Your task to perform on an android device: Open network settings Image 0: 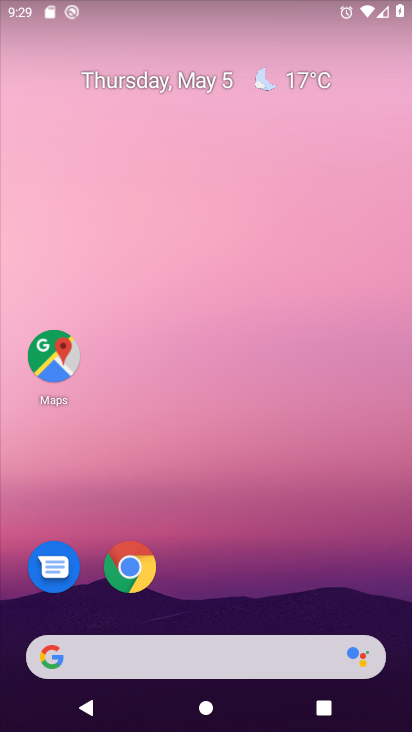
Step 0: drag from (322, 564) to (285, 31)
Your task to perform on an android device: Open network settings Image 1: 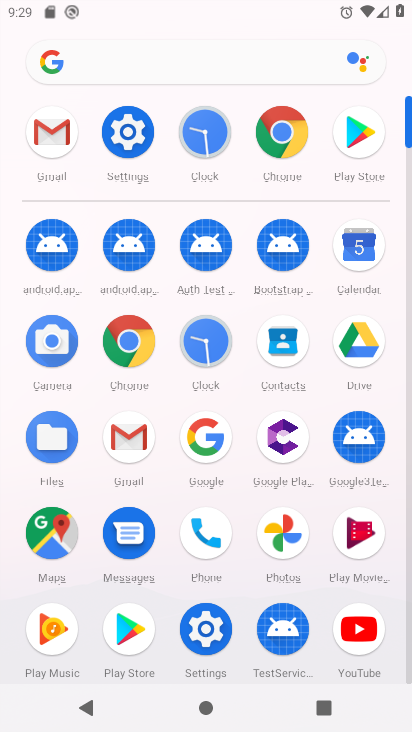
Step 1: click (147, 118)
Your task to perform on an android device: Open network settings Image 2: 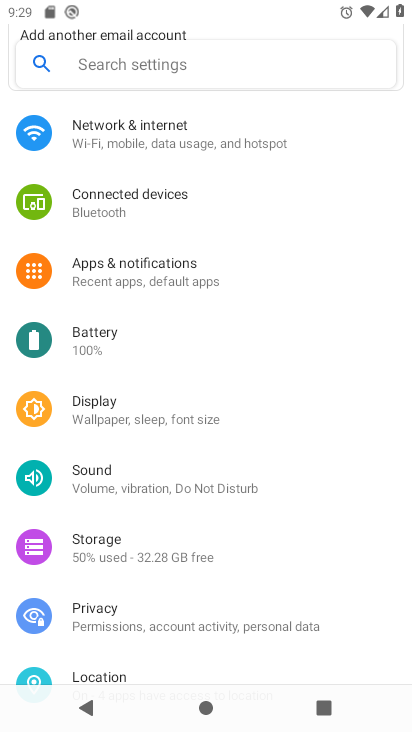
Step 2: drag from (240, 282) to (257, 373)
Your task to perform on an android device: Open network settings Image 3: 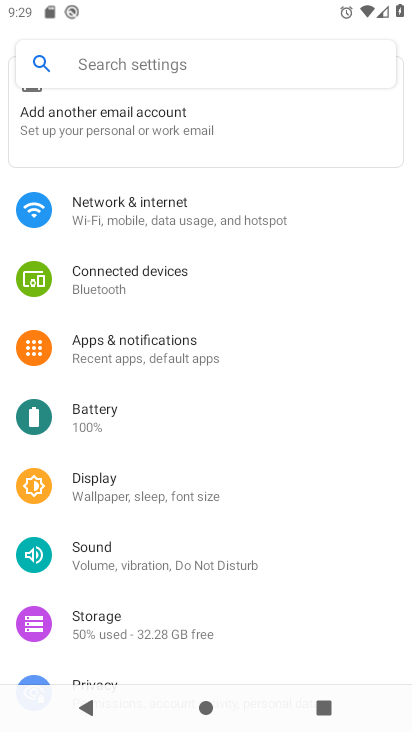
Step 3: click (241, 212)
Your task to perform on an android device: Open network settings Image 4: 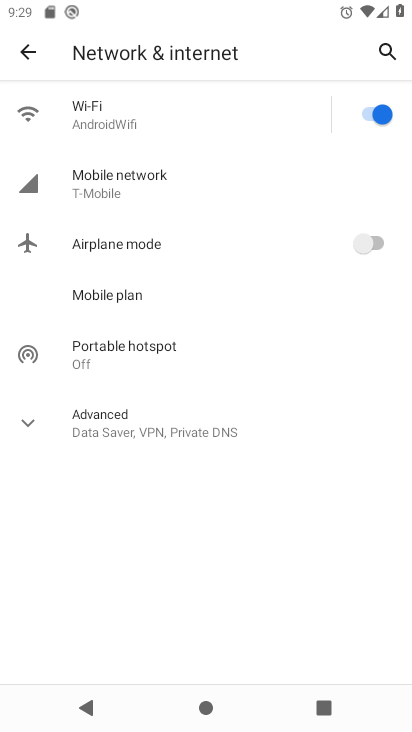
Step 4: task complete